Your task to perform on an android device: set an alarm Image 0: 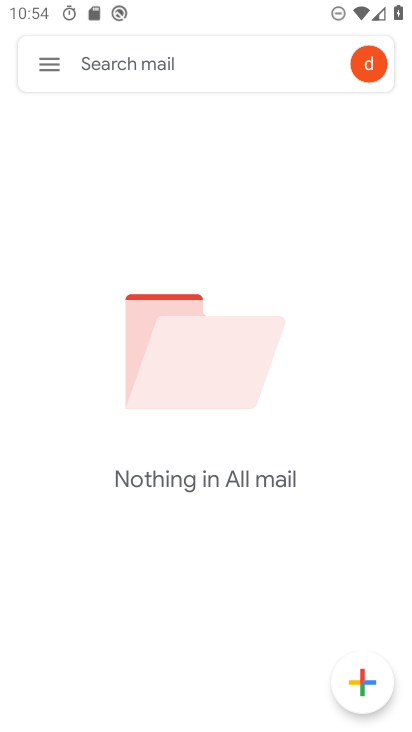
Step 0: press home button
Your task to perform on an android device: set an alarm Image 1: 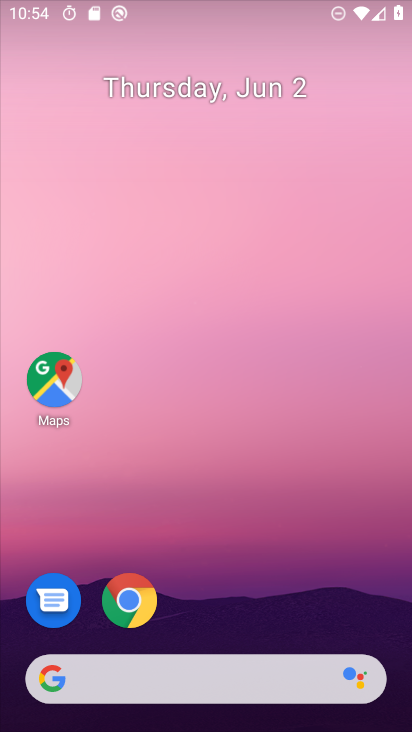
Step 1: drag from (250, 630) to (293, 43)
Your task to perform on an android device: set an alarm Image 2: 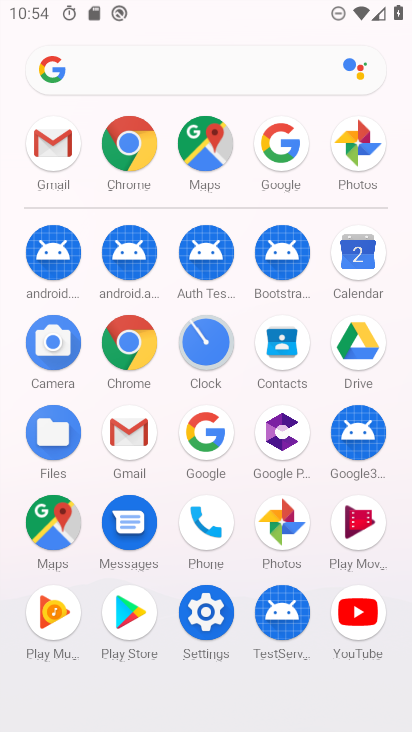
Step 2: click (208, 346)
Your task to perform on an android device: set an alarm Image 3: 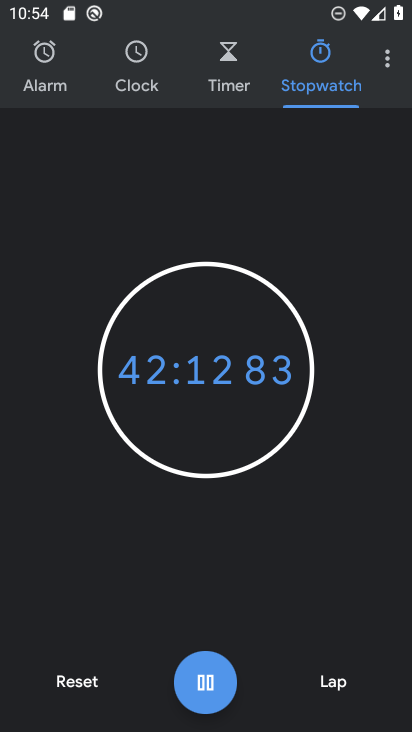
Step 3: click (43, 66)
Your task to perform on an android device: set an alarm Image 4: 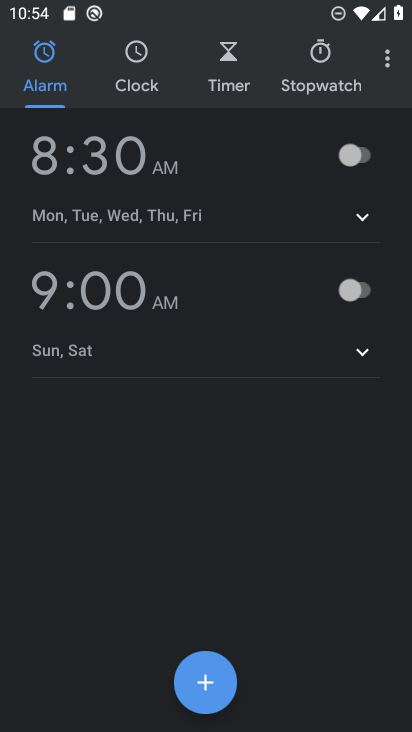
Step 4: click (349, 151)
Your task to perform on an android device: set an alarm Image 5: 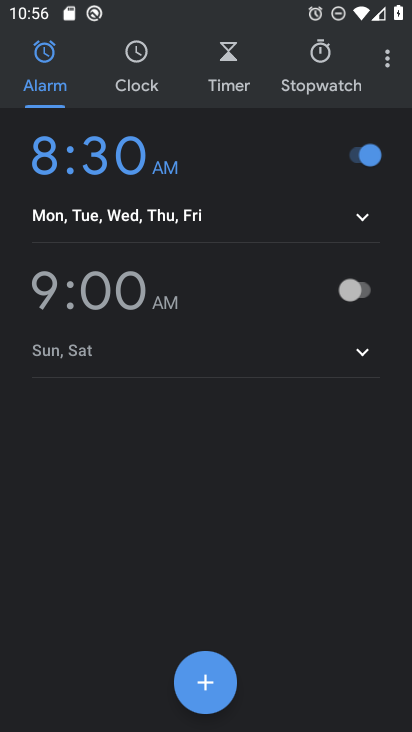
Step 5: task complete